Your task to perform on an android device: turn pop-ups off in chrome Image 0: 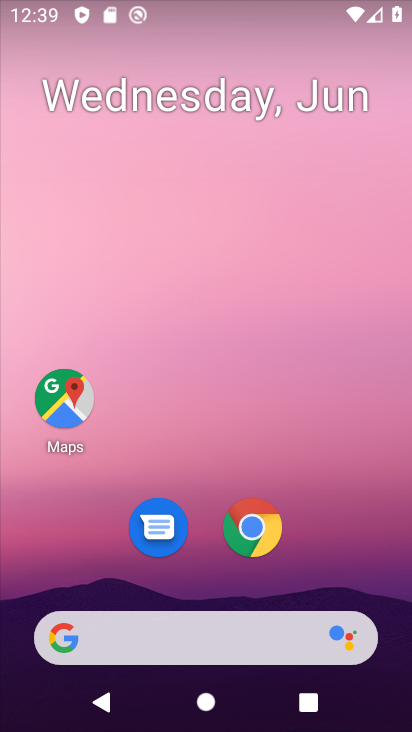
Step 0: click (256, 528)
Your task to perform on an android device: turn pop-ups off in chrome Image 1: 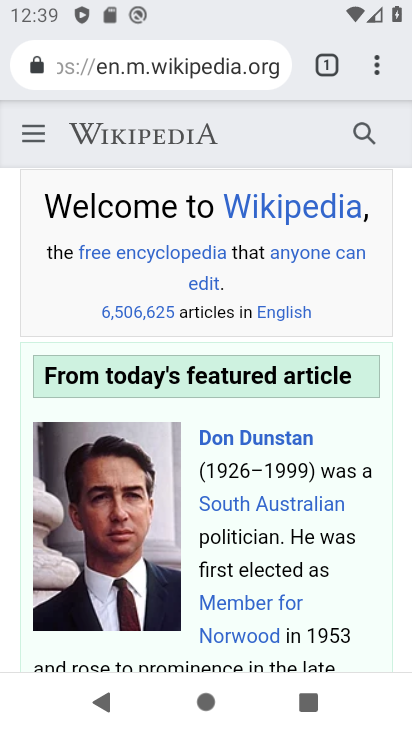
Step 1: drag from (382, 71) to (165, 576)
Your task to perform on an android device: turn pop-ups off in chrome Image 2: 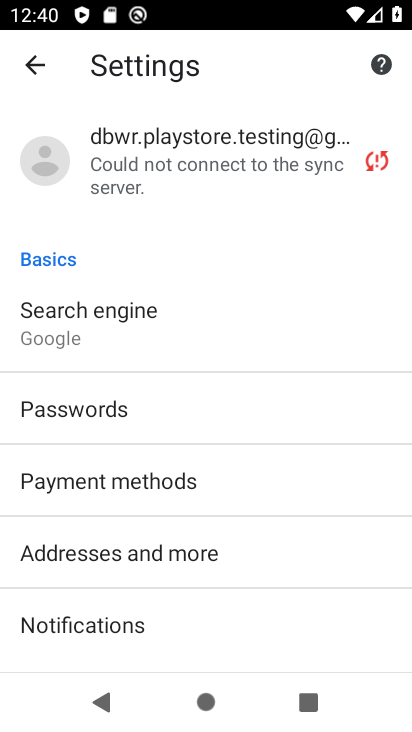
Step 2: drag from (197, 613) to (155, 6)
Your task to perform on an android device: turn pop-ups off in chrome Image 3: 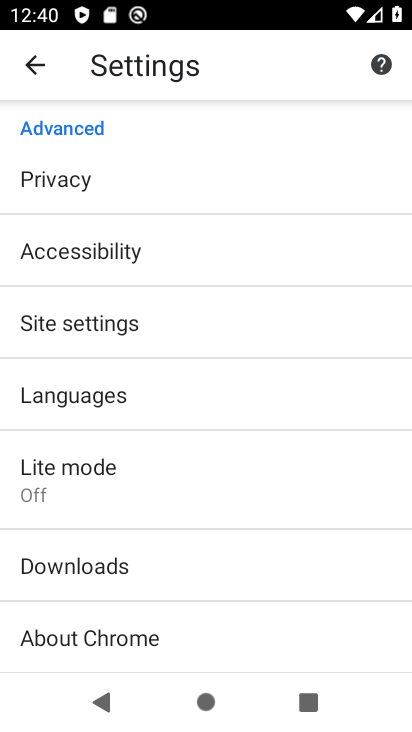
Step 3: click (127, 334)
Your task to perform on an android device: turn pop-ups off in chrome Image 4: 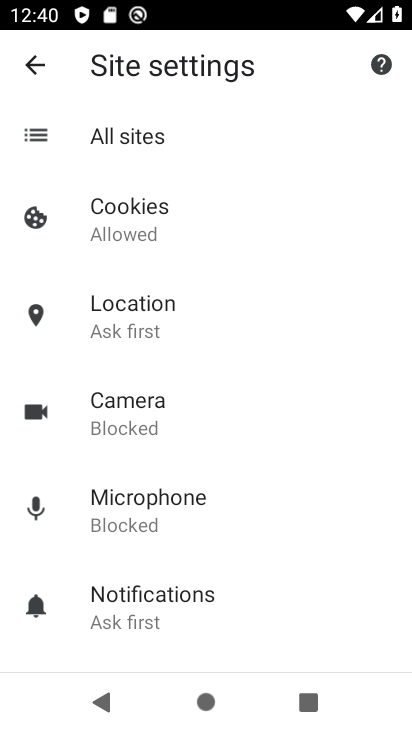
Step 4: drag from (145, 558) to (165, 47)
Your task to perform on an android device: turn pop-ups off in chrome Image 5: 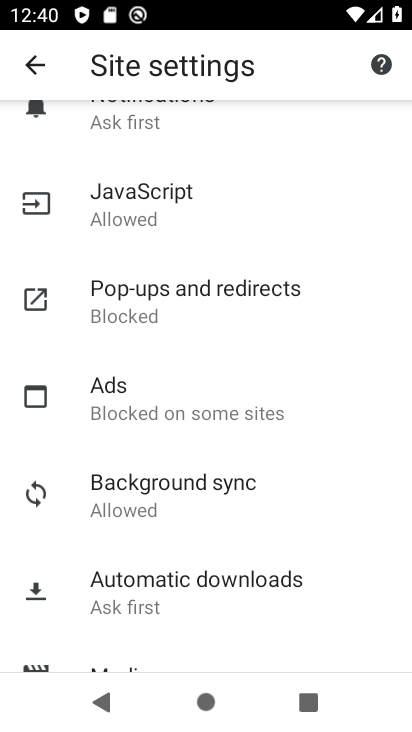
Step 5: click (185, 295)
Your task to perform on an android device: turn pop-ups off in chrome Image 6: 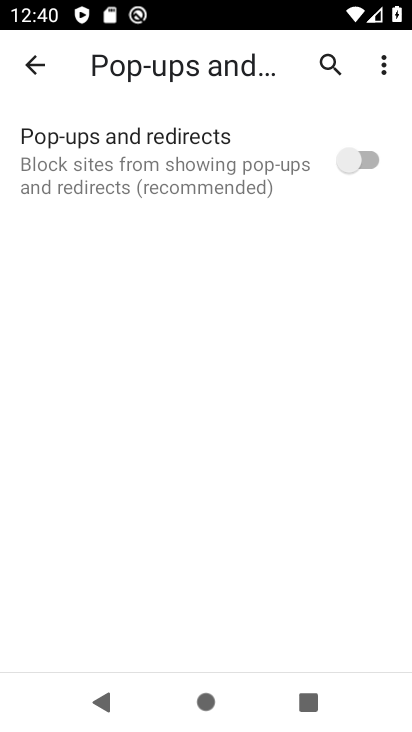
Step 6: task complete